Your task to perform on an android device: uninstall "Calculator" Image 0: 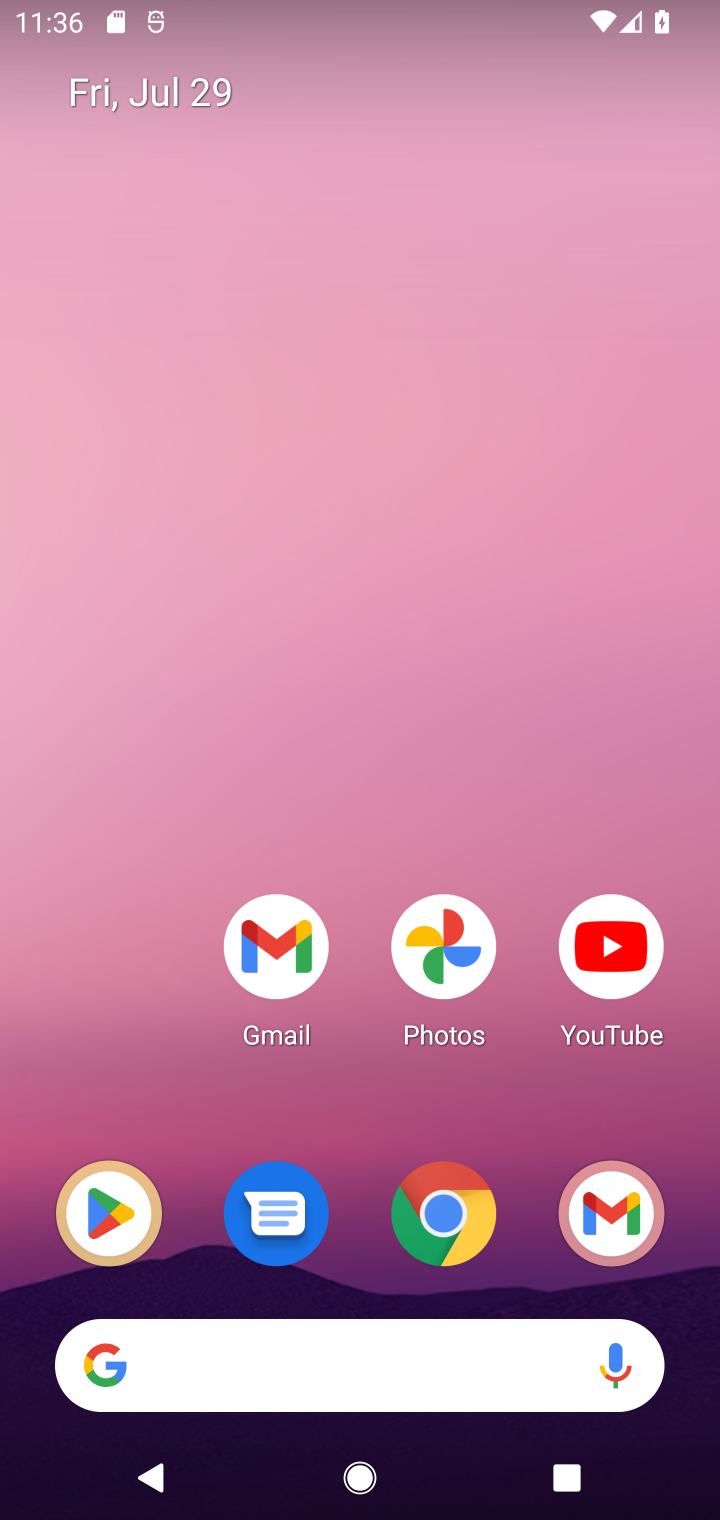
Step 0: drag from (436, 1457) to (441, 549)
Your task to perform on an android device: uninstall "Calculator" Image 1: 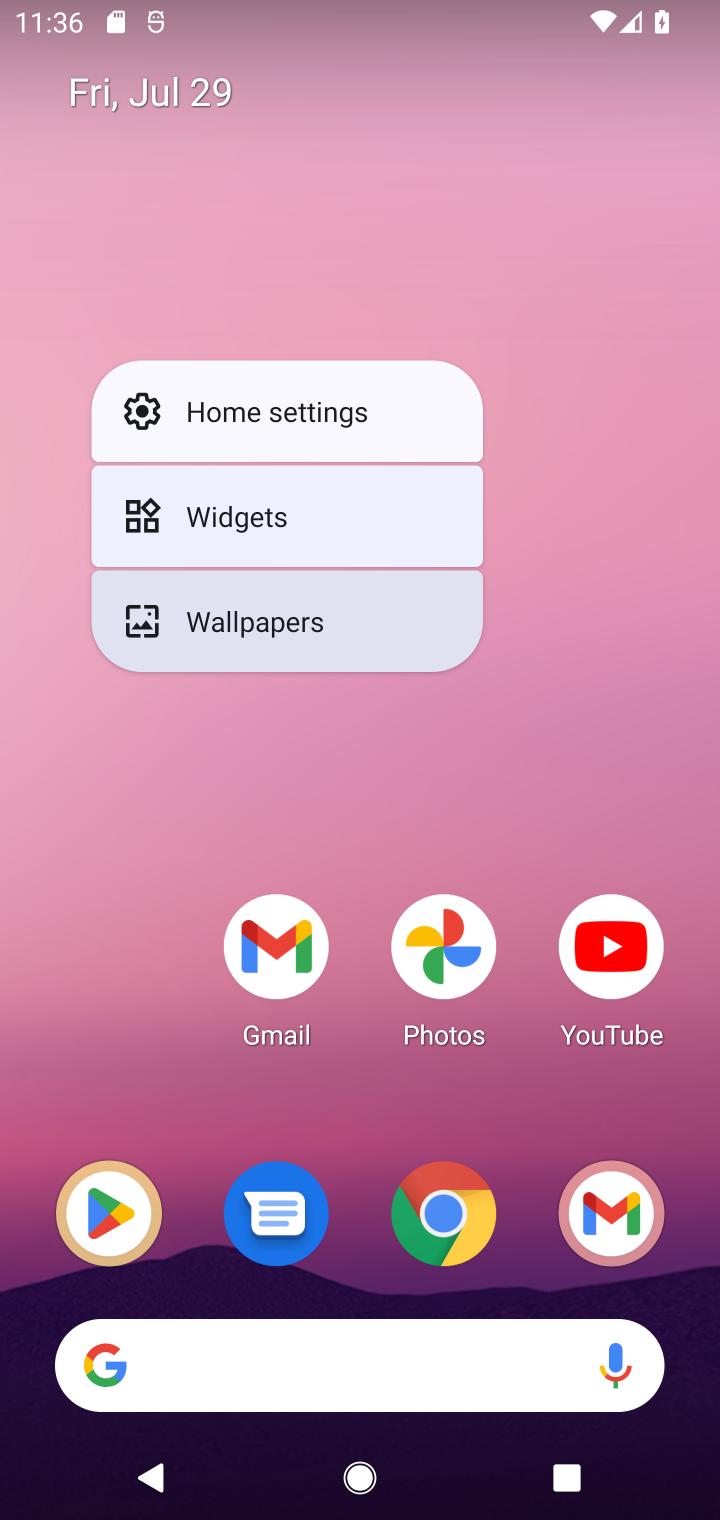
Step 1: press home button
Your task to perform on an android device: uninstall "Calculator" Image 2: 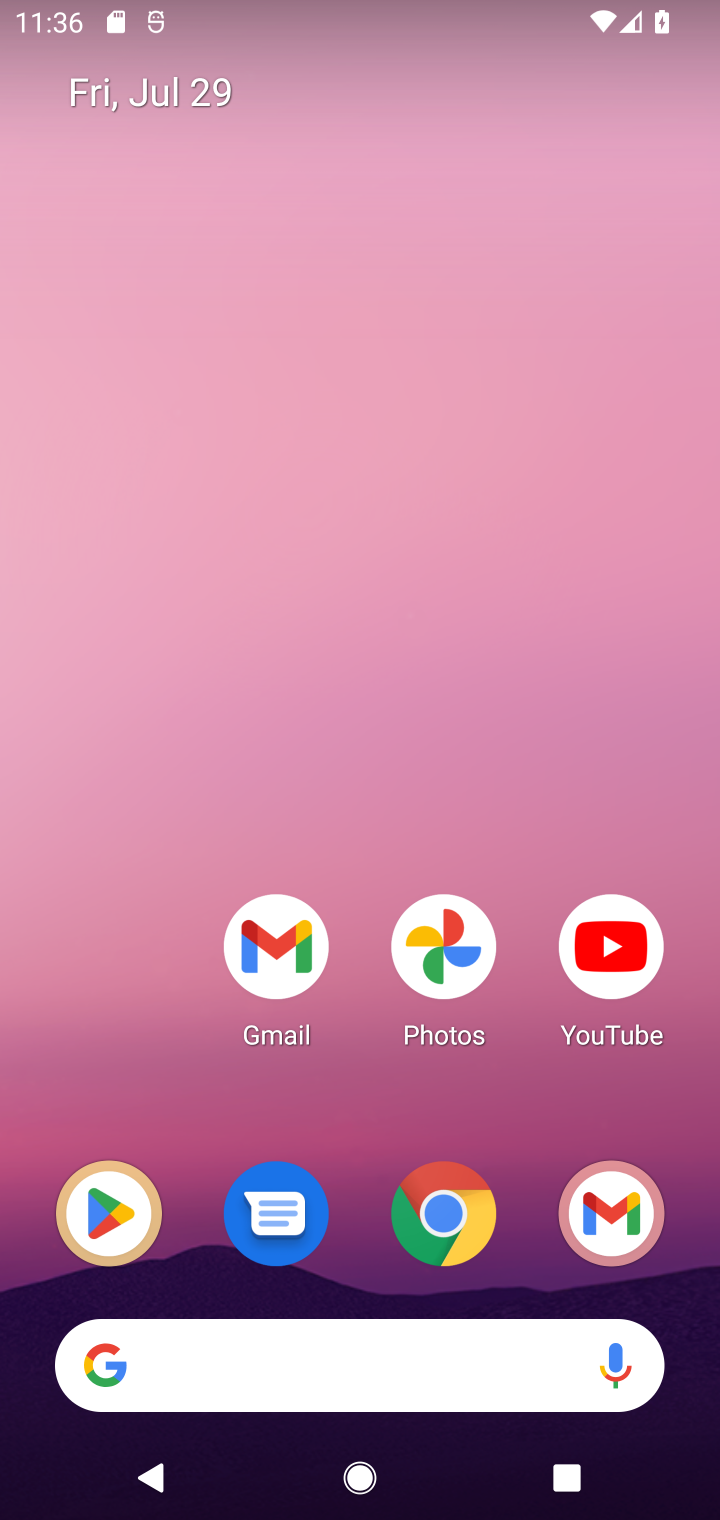
Step 2: drag from (409, 1387) to (380, 631)
Your task to perform on an android device: uninstall "Calculator" Image 3: 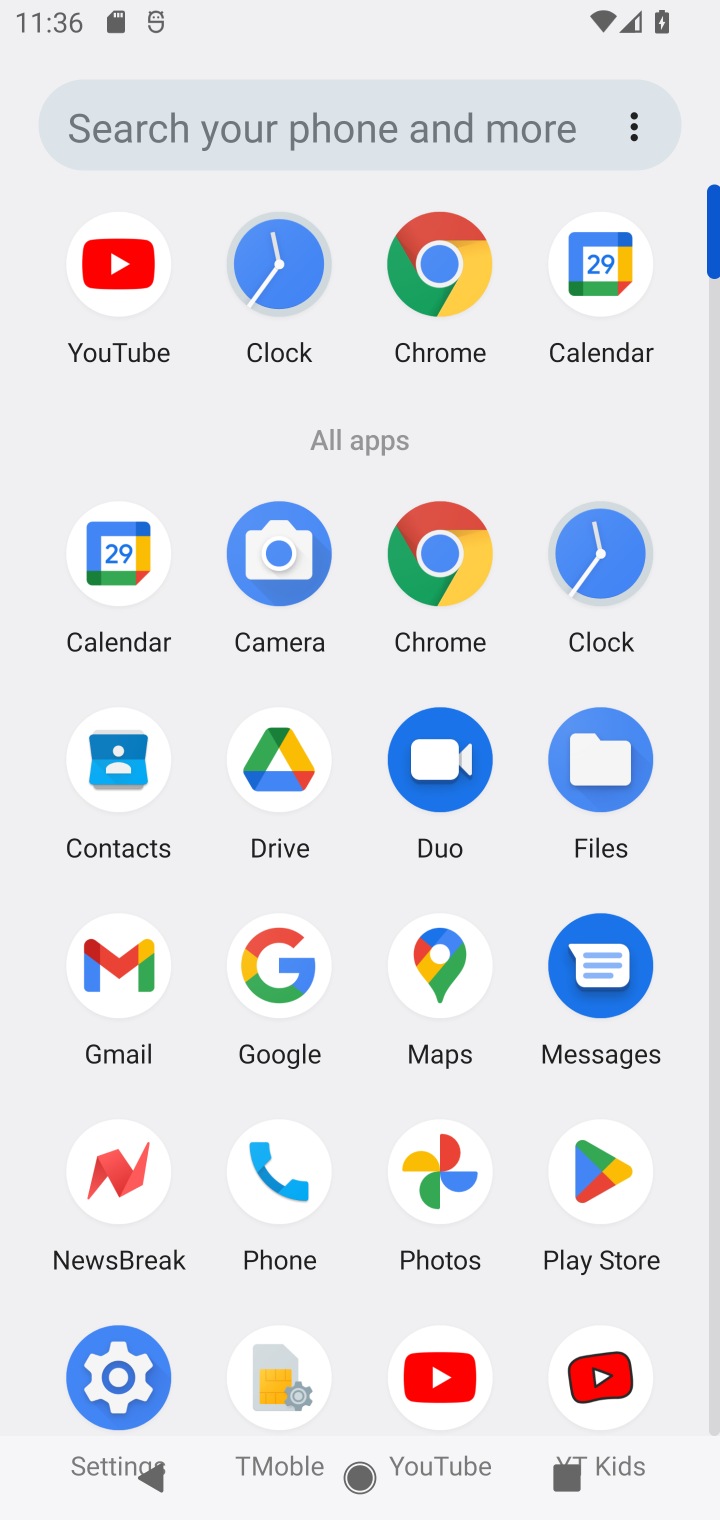
Step 3: click (621, 1158)
Your task to perform on an android device: uninstall "Calculator" Image 4: 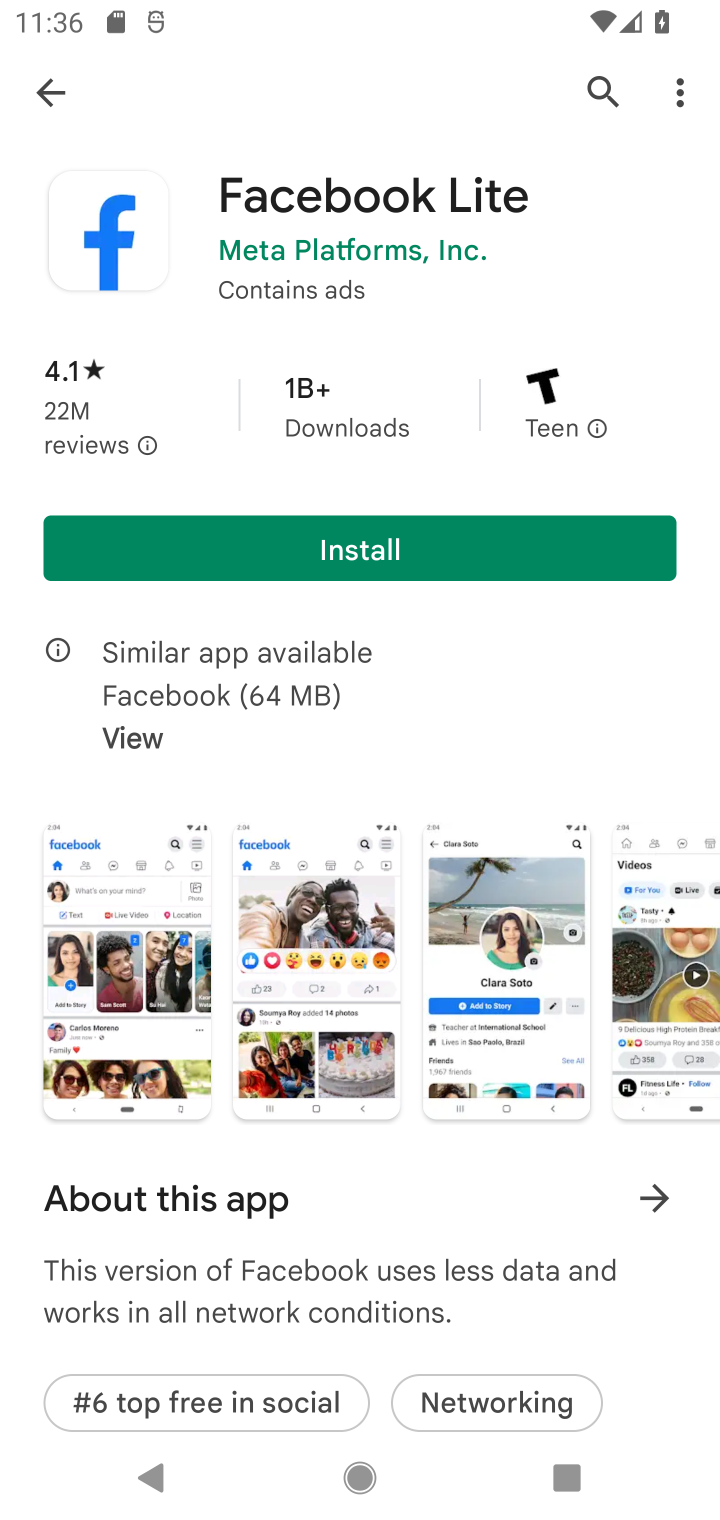
Step 4: click (594, 93)
Your task to perform on an android device: uninstall "Calculator" Image 5: 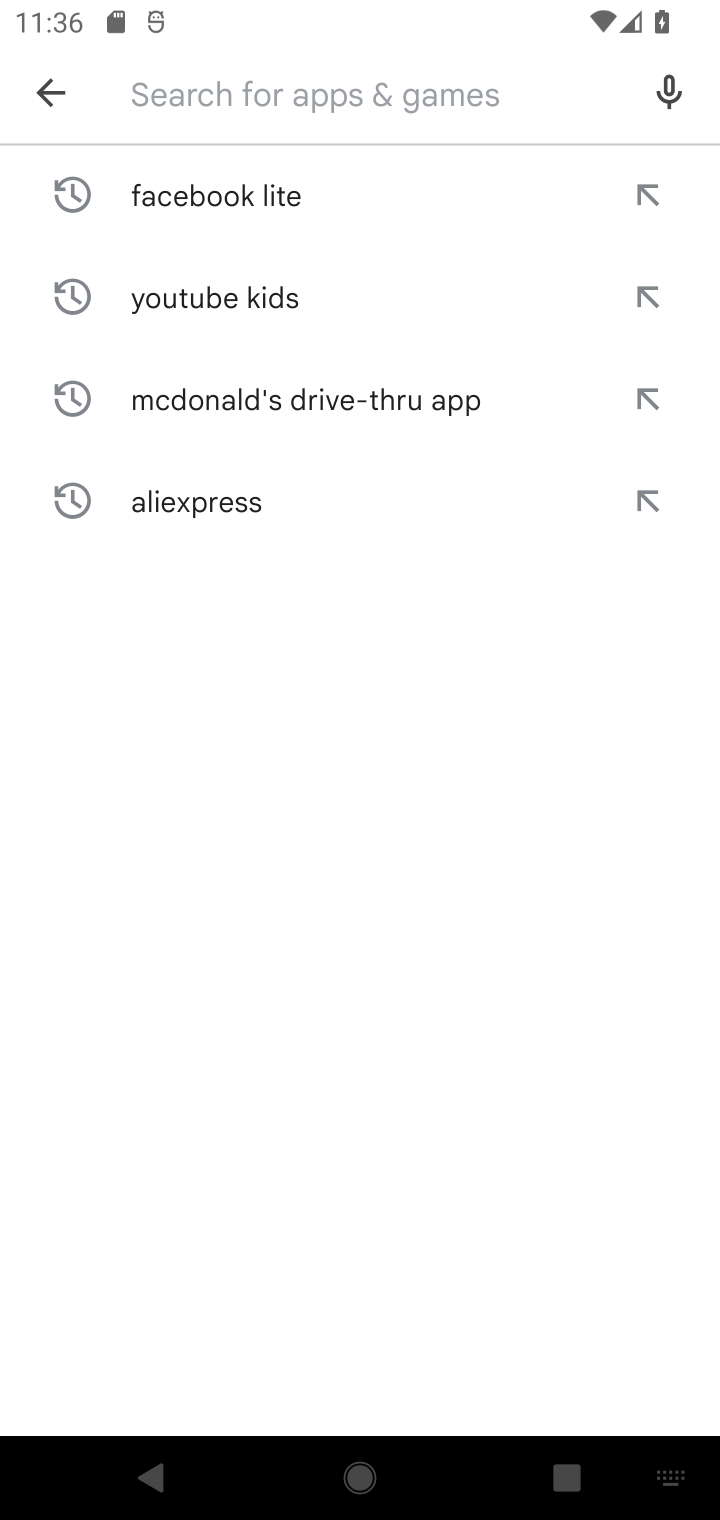
Step 5: type "Calculator"
Your task to perform on an android device: uninstall "Calculator" Image 6: 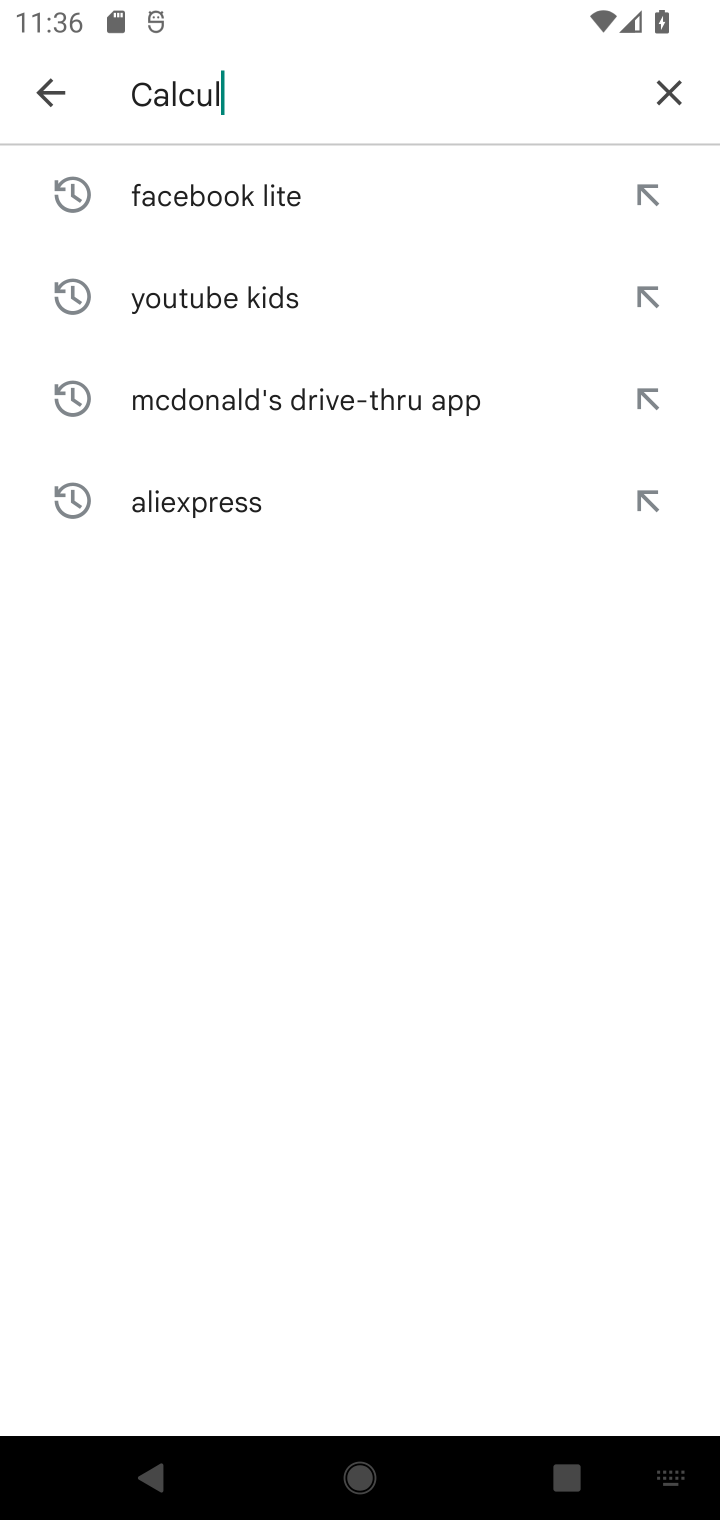
Step 6: type ""
Your task to perform on an android device: uninstall "Calculator" Image 7: 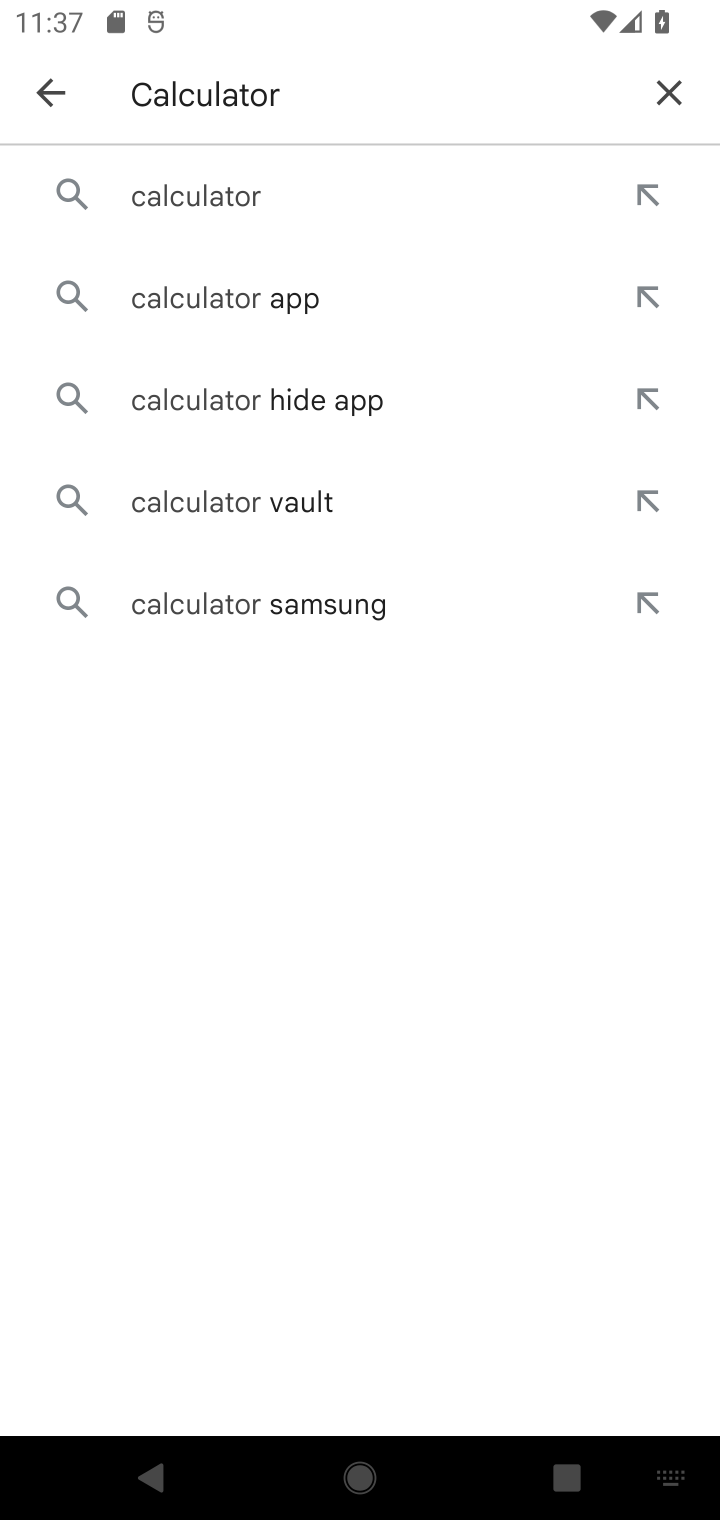
Step 7: click (238, 188)
Your task to perform on an android device: uninstall "Calculator" Image 8: 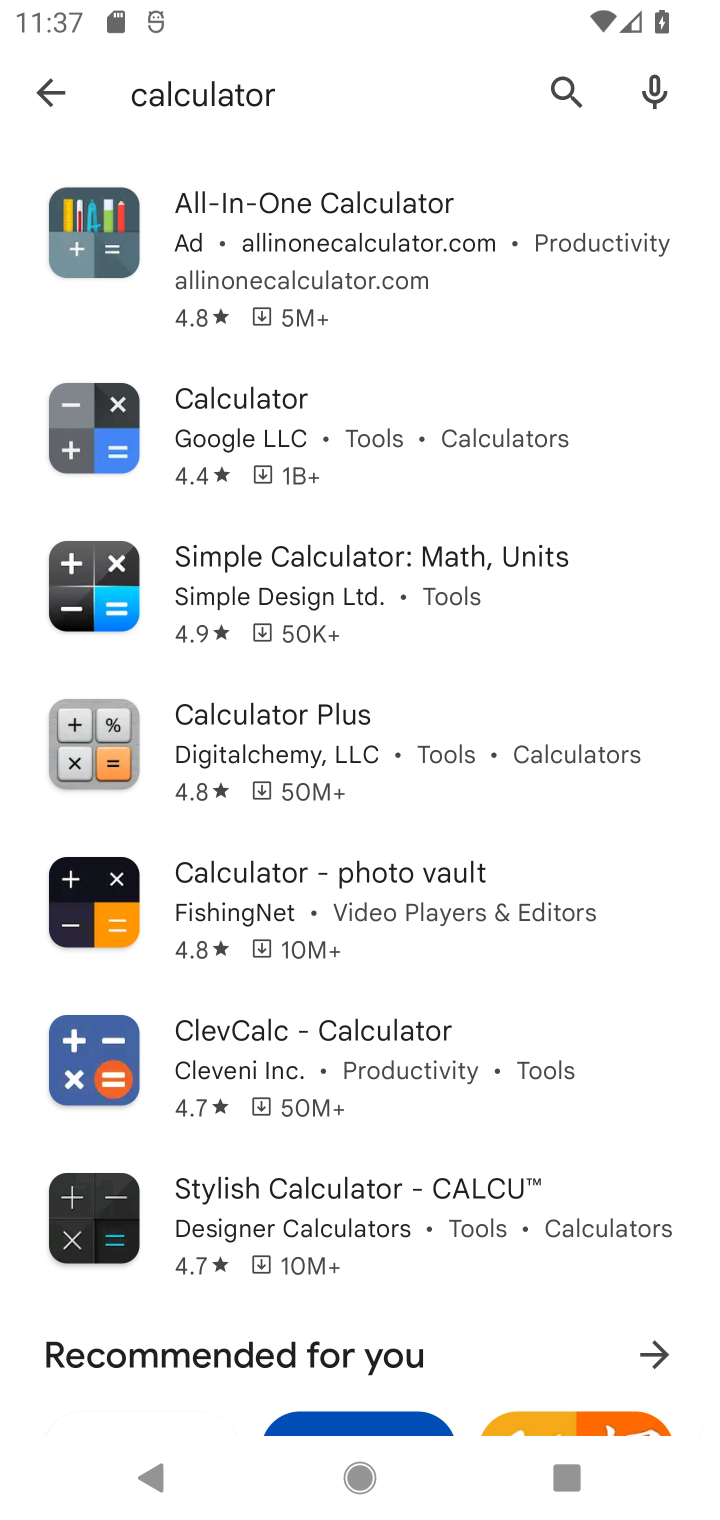
Step 8: click (249, 388)
Your task to perform on an android device: uninstall "Calculator" Image 9: 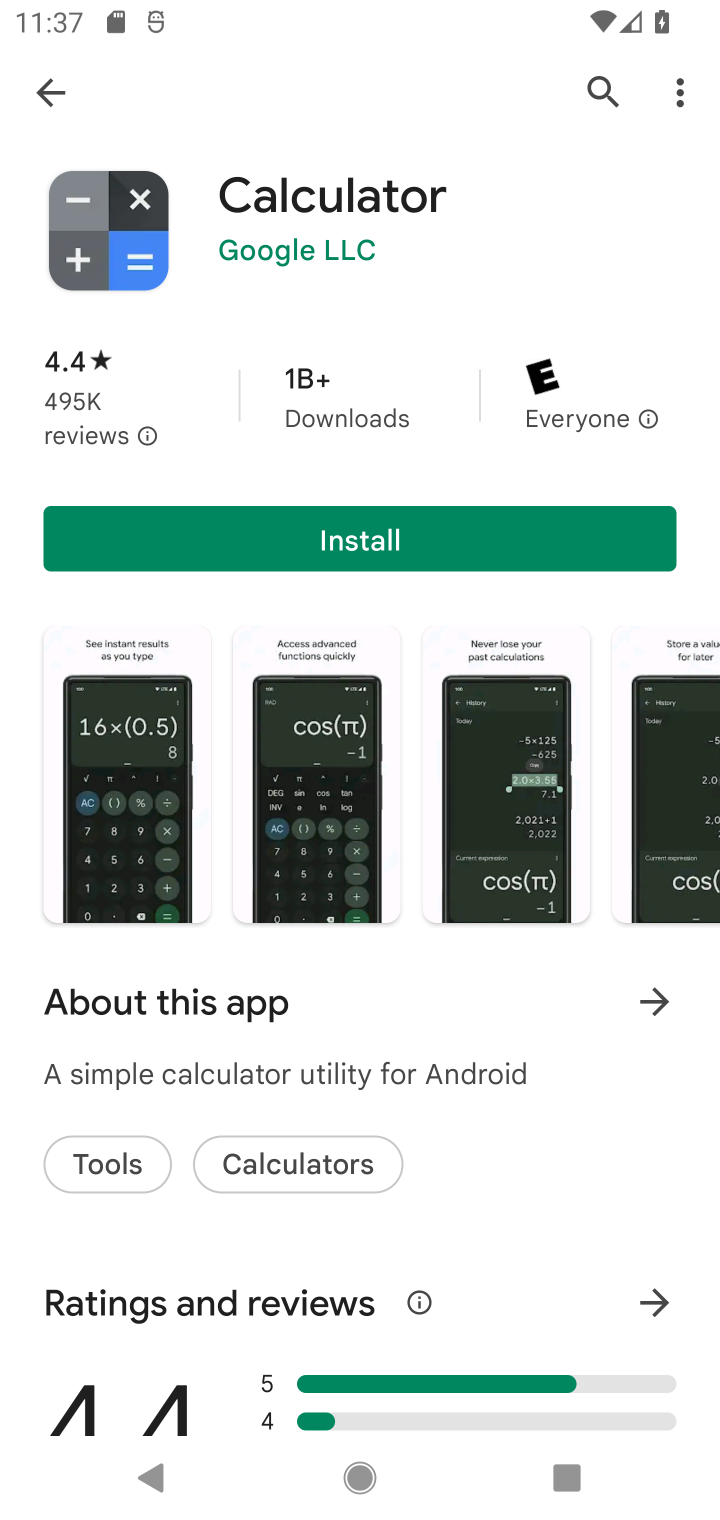
Step 9: task complete